Your task to perform on an android device: View the shopping cart on bestbuy.com. Add macbook air to the cart on bestbuy.com Image 0: 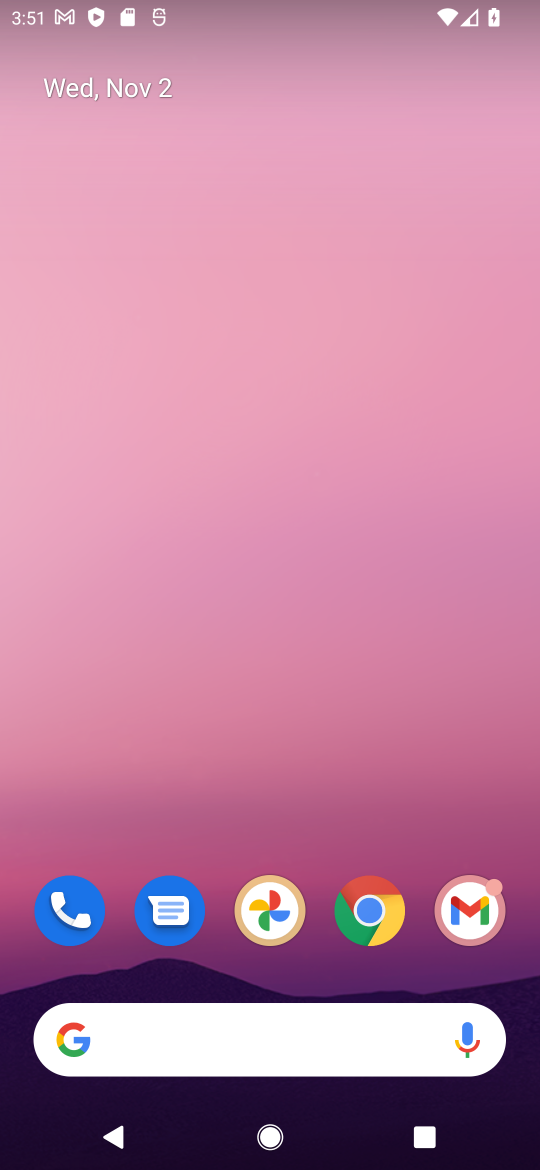
Step 0: click (379, 914)
Your task to perform on an android device: View the shopping cart on bestbuy.com. Add macbook air to the cart on bestbuy.com Image 1: 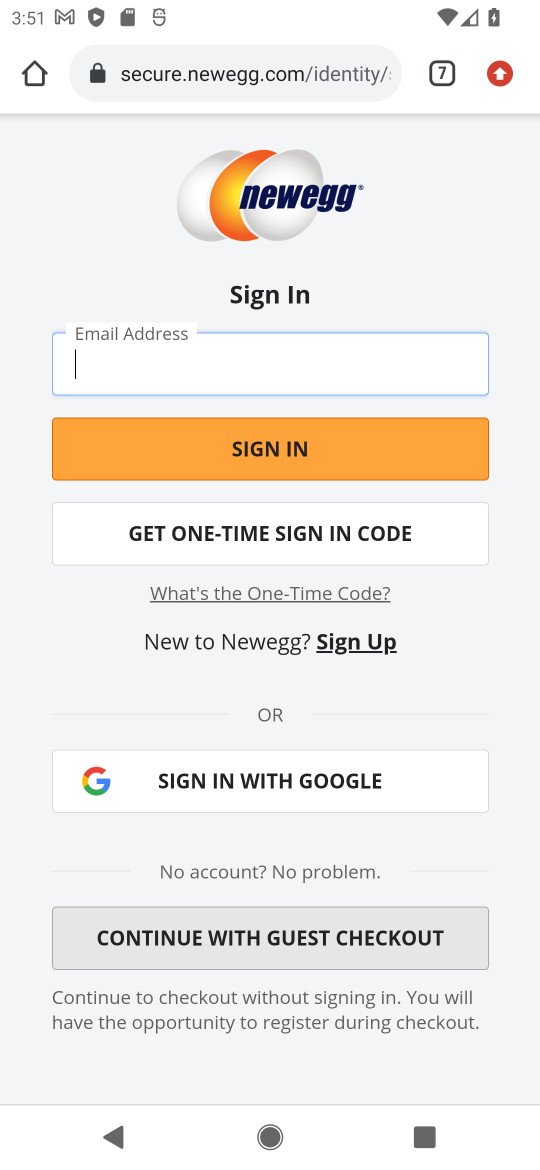
Step 1: click (439, 71)
Your task to perform on an android device: View the shopping cart on bestbuy.com. Add macbook air to the cart on bestbuy.com Image 2: 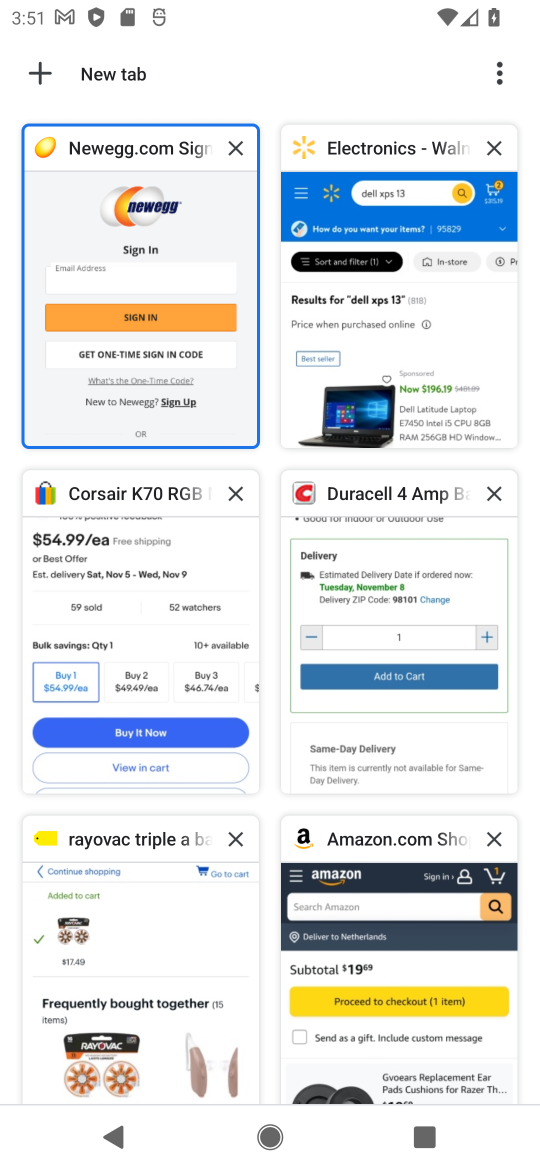
Step 2: click (177, 912)
Your task to perform on an android device: View the shopping cart on bestbuy.com. Add macbook air to the cart on bestbuy.com Image 3: 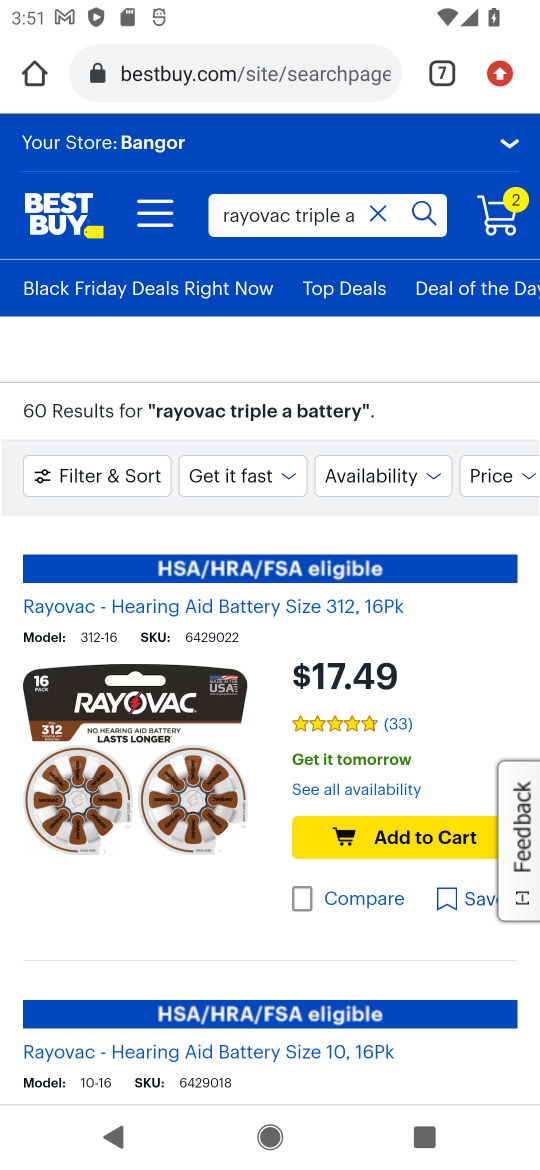
Step 3: click (372, 212)
Your task to perform on an android device: View the shopping cart on bestbuy.com. Add macbook air to the cart on bestbuy.com Image 4: 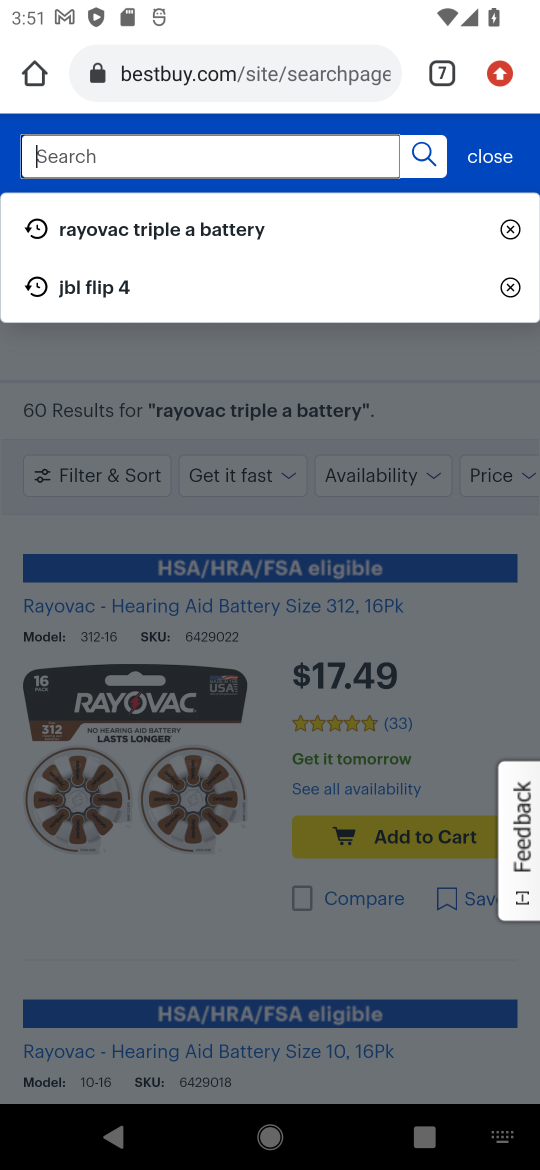
Step 4: type "macbook air "
Your task to perform on an android device: View the shopping cart on bestbuy.com. Add macbook air to the cart on bestbuy.com Image 5: 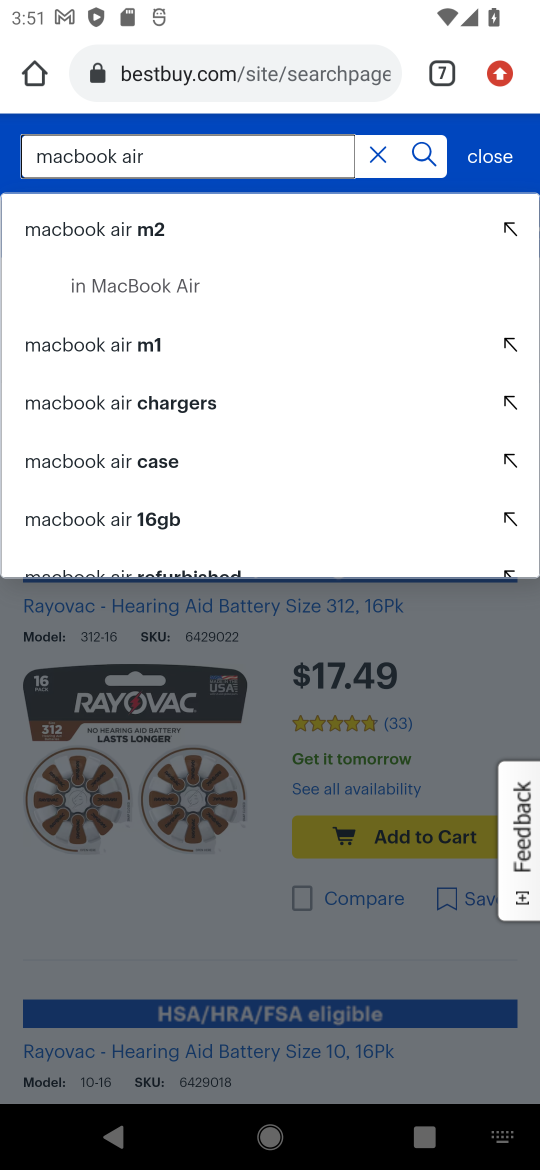
Step 5: click (158, 284)
Your task to perform on an android device: View the shopping cart on bestbuy.com. Add macbook air to the cart on bestbuy.com Image 6: 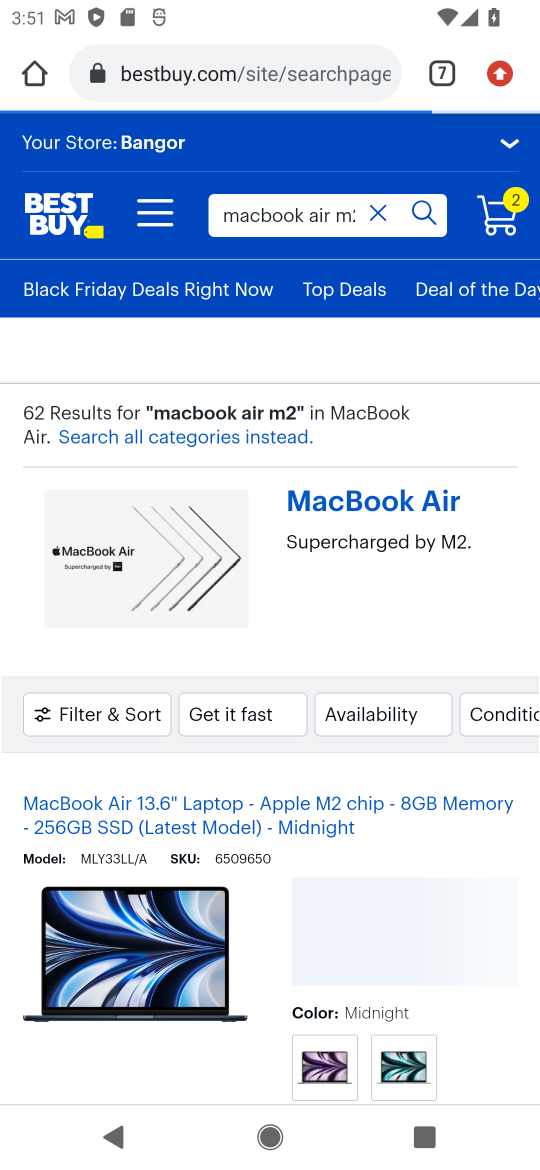
Step 6: drag from (369, 839) to (465, 38)
Your task to perform on an android device: View the shopping cart on bestbuy.com. Add macbook air to the cart on bestbuy.com Image 7: 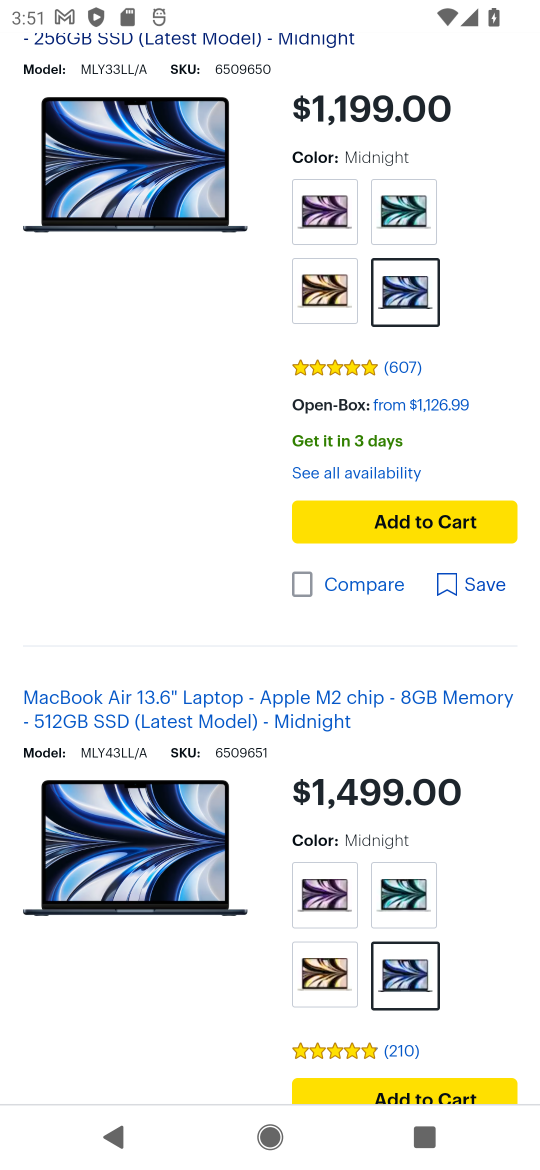
Step 7: click (393, 450)
Your task to perform on an android device: View the shopping cart on bestbuy.com. Add macbook air to the cart on bestbuy.com Image 8: 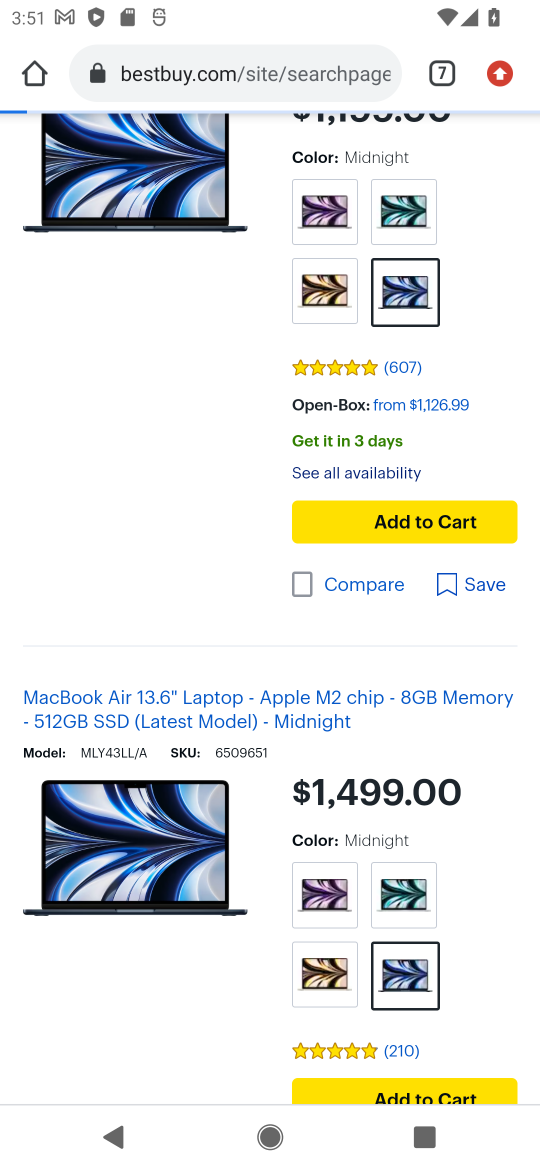
Step 8: click (414, 519)
Your task to perform on an android device: View the shopping cart on bestbuy.com. Add macbook air to the cart on bestbuy.com Image 9: 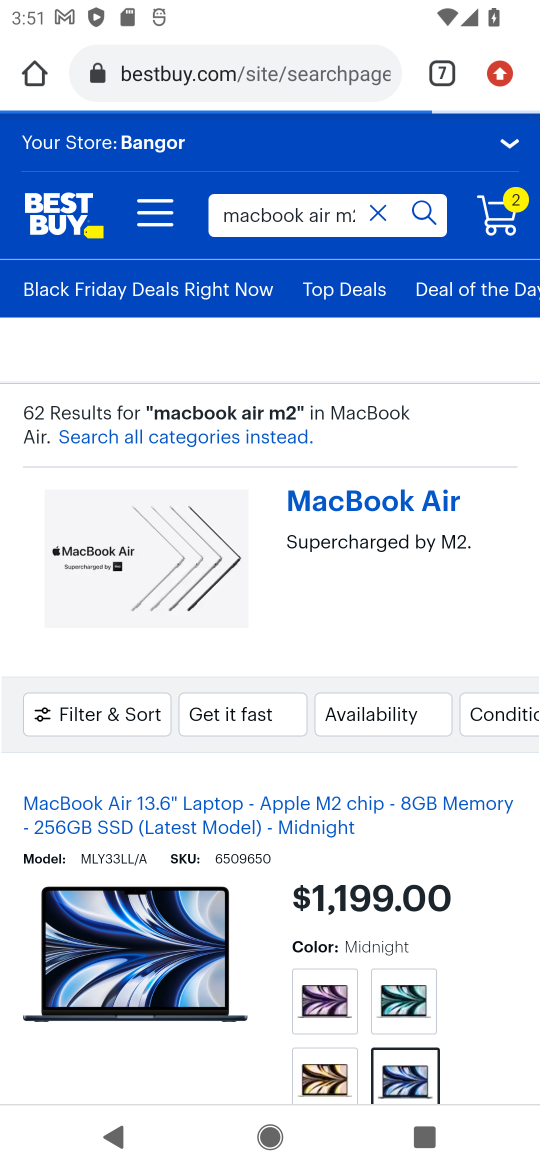
Step 9: drag from (501, 836) to (468, 513)
Your task to perform on an android device: View the shopping cart on bestbuy.com. Add macbook air to the cart on bestbuy.com Image 10: 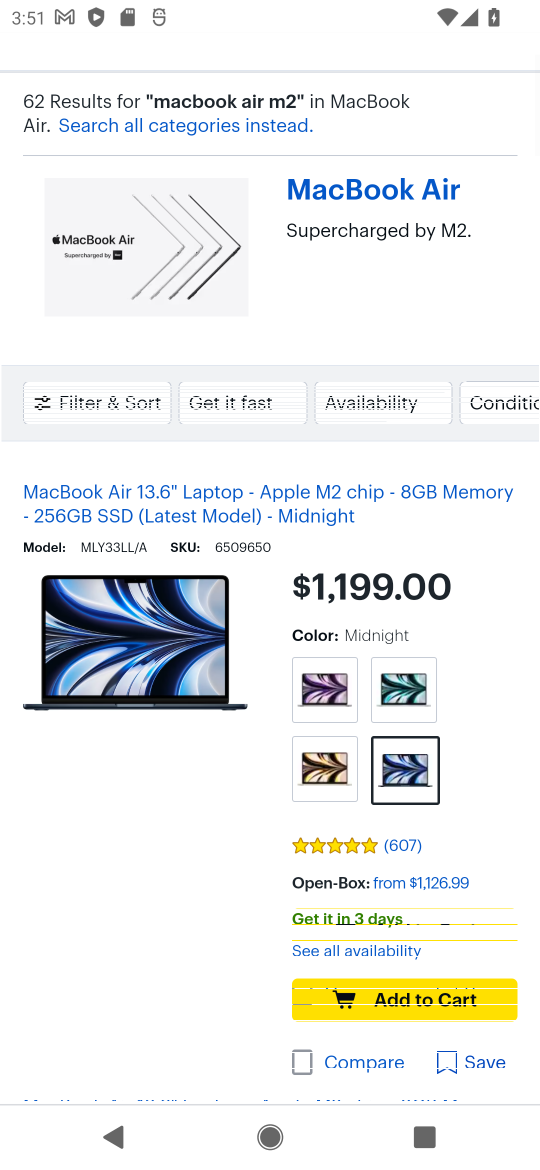
Step 10: click (416, 938)
Your task to perform on an android device: View the shopping cart on bestbuy.com. Add macbook air to the cart on bestbuy.com Image 11: 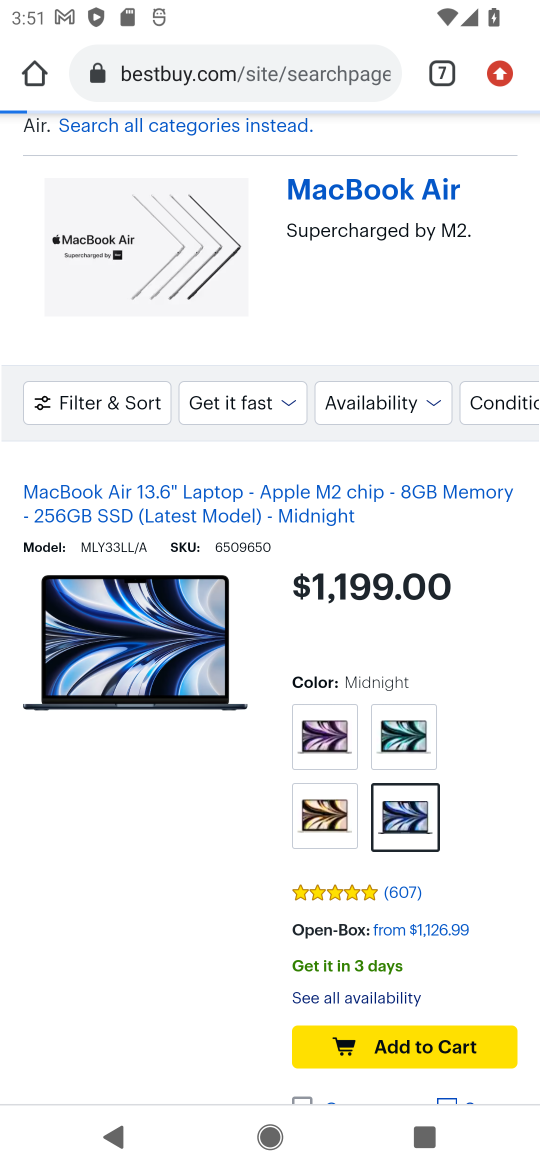
Step 11: click (449, 1001)
Your task to perform on an android device: View the shopping cart on bestbuy.com. Add macbook air to the cart on bestbuy.com Image 12: 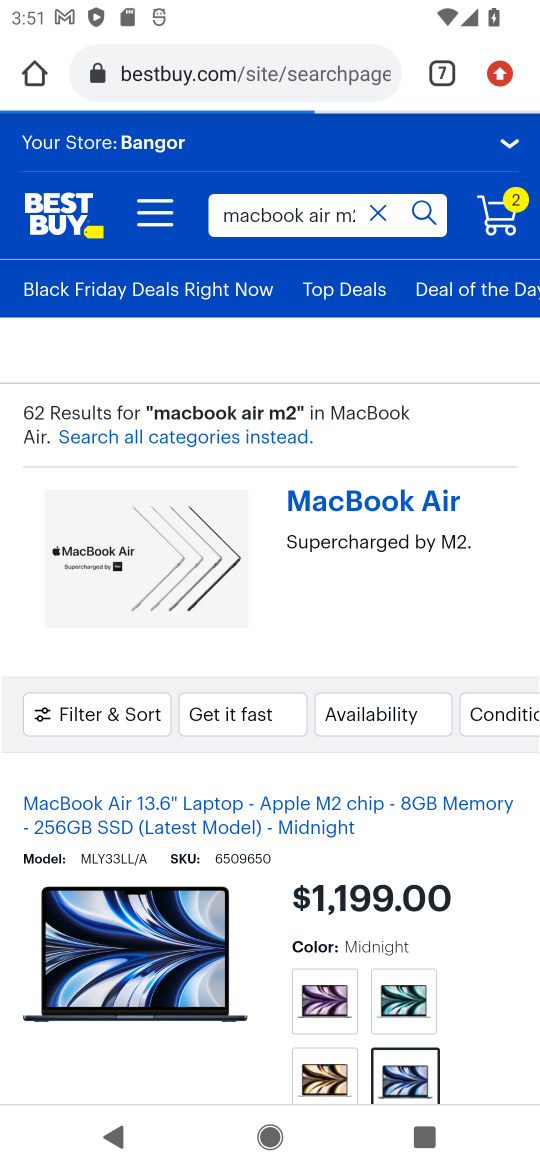
Step 12: drag from (442, 1034) to (495, 457)
Your task to perform on an android device: View the shopping cart on bestbuy.com. Add macbook air to the cart on bestbuy.com Image 13: 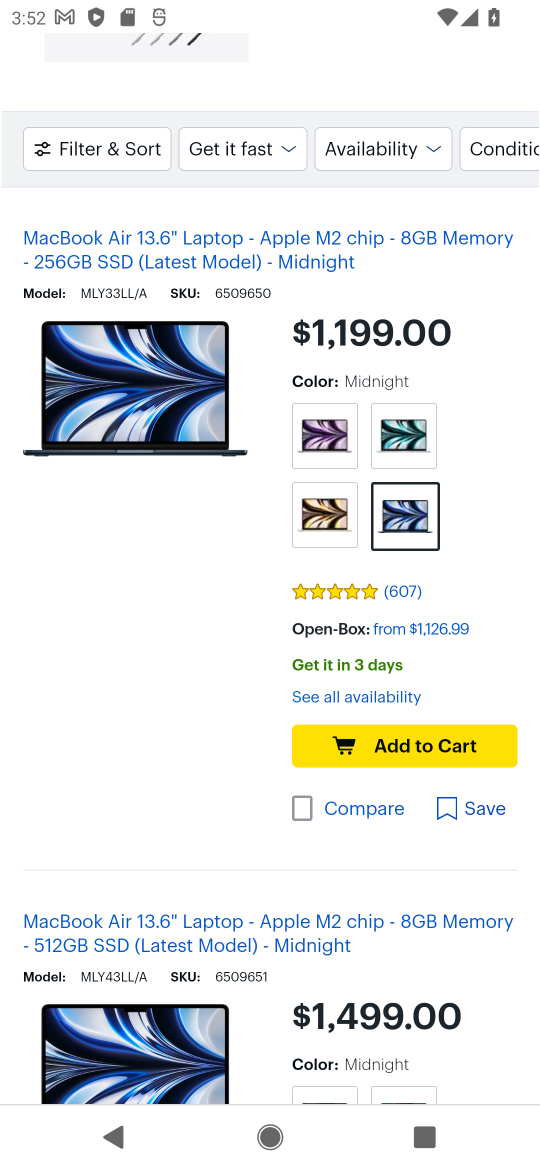
Step 13: click (394, 735)
Your task to perform on an android device: View the shopping cart on bestbuy.com. Add macbook air to the cart on bestbuy.com Image 14: 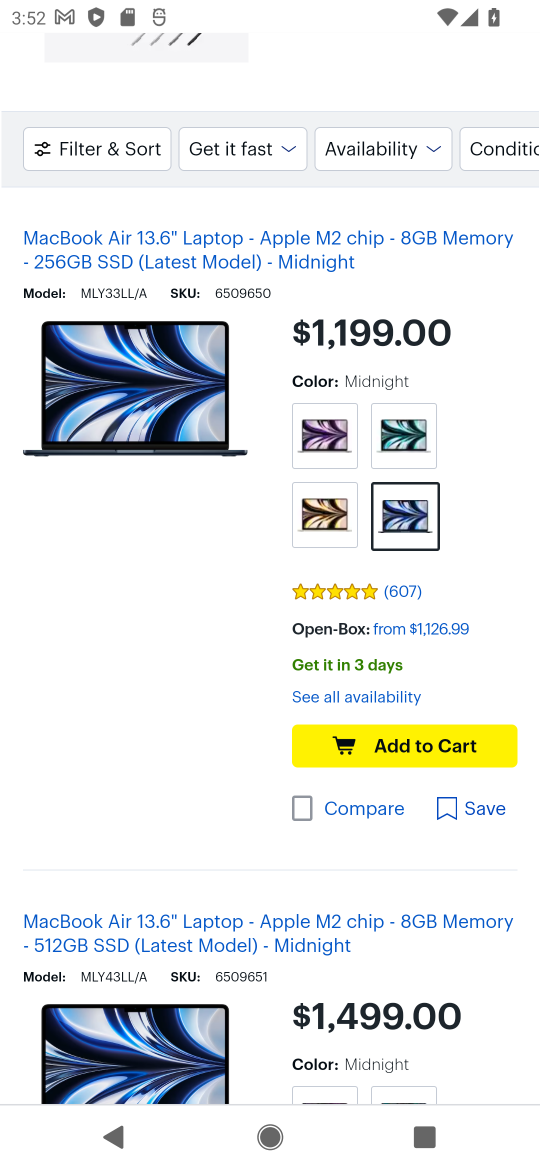
Step 14: task complete